Your task to perform on an android device: Go to accessibility settings Image 0: 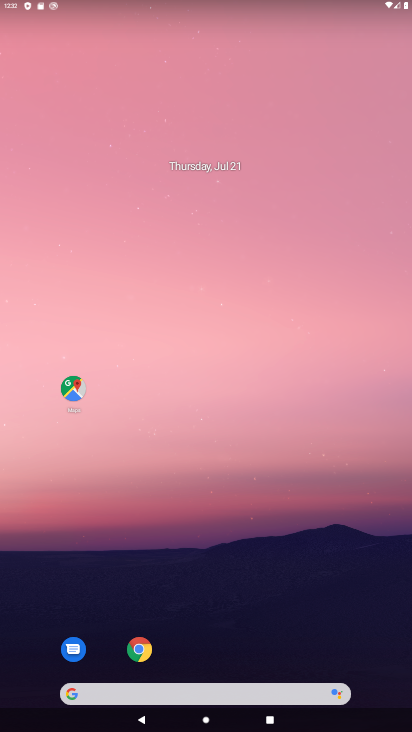
Step 0: drag from (161, 263) to (161, 205)
Your task to perform on an android device: Go to accessibility settings Image 1: 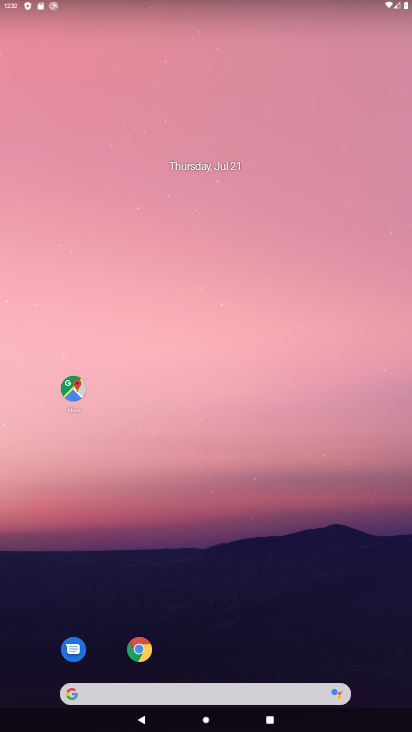
Step 1: drag from (234, 672) to (155, 95)
Your task to perform on an android device: Go to accessibility settings Image 2: 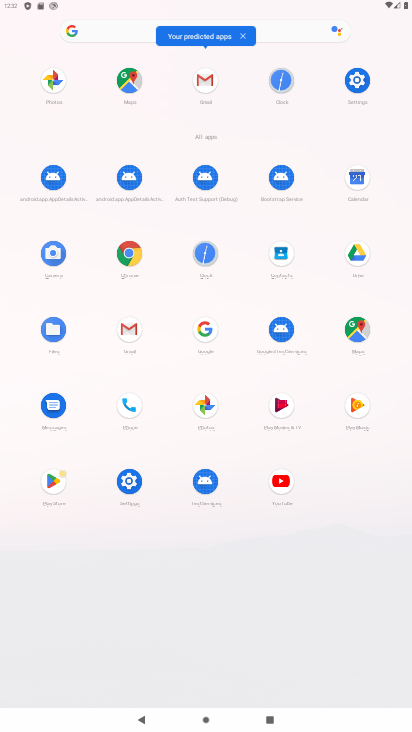
Step 2: click (361, 78)
Your task to perform on an android device: Go to accessibility settings Image 3: 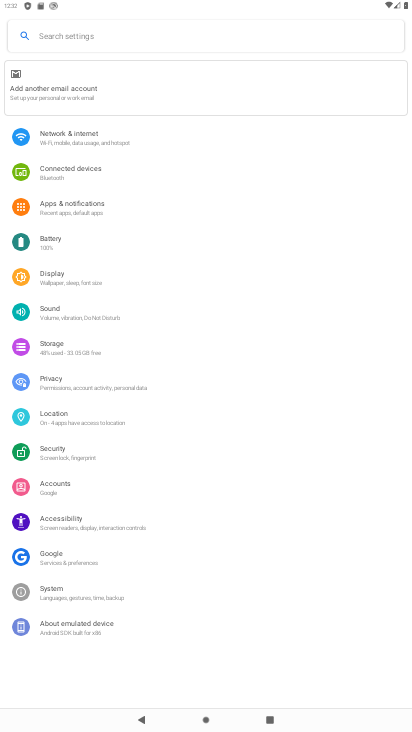
Step 3: click (68, 524)
Your task to perform on an android device: Go to accessibility settings Image 4: 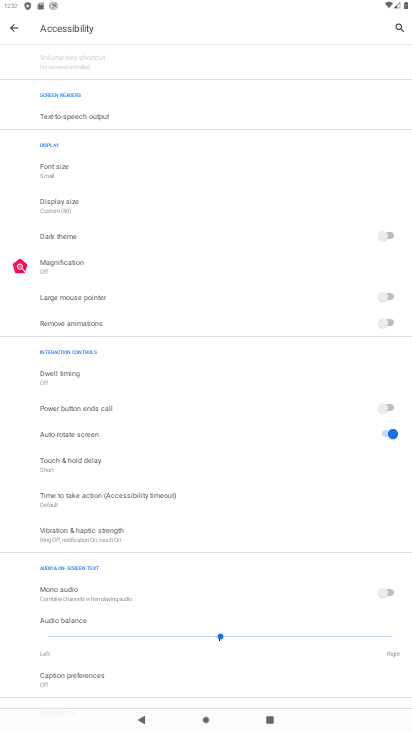
Step 4: task complete